Your task to perform on an android device: check data usage Image 0: 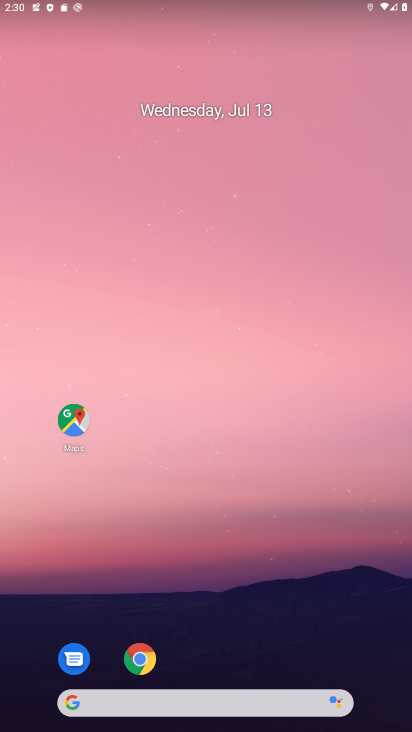
Step 0: drag from (242, 570) to (247, 251)
Your task to perform on an android device: check data usage Image 1: 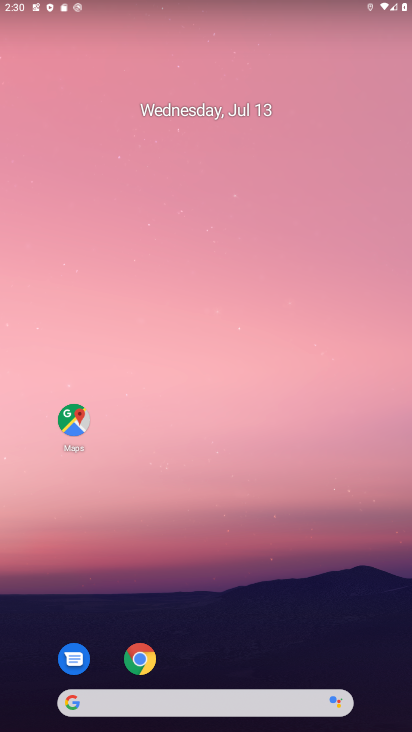
Step 1: drag from (242, 574) to (262, 247)
Your task to perform on an android device: check data usage Image 2: 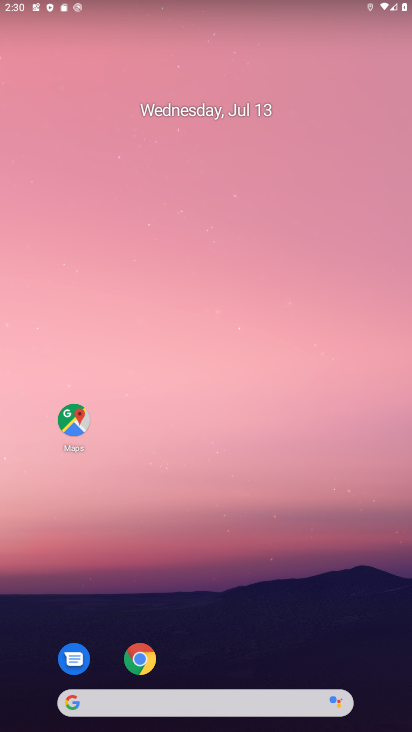
Step 2: drag from (197, 687) to (212, 159)
Your task to perform on an android device: check data usage Image 3: 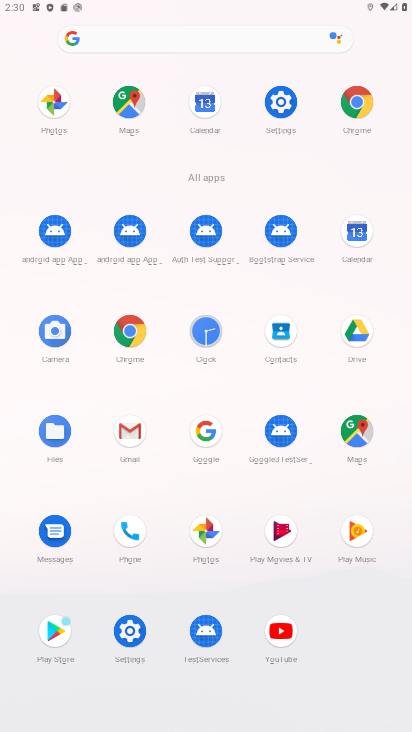
Step 3: click (288, 105)
Your task to perform on an android device: check data usage Image 4: 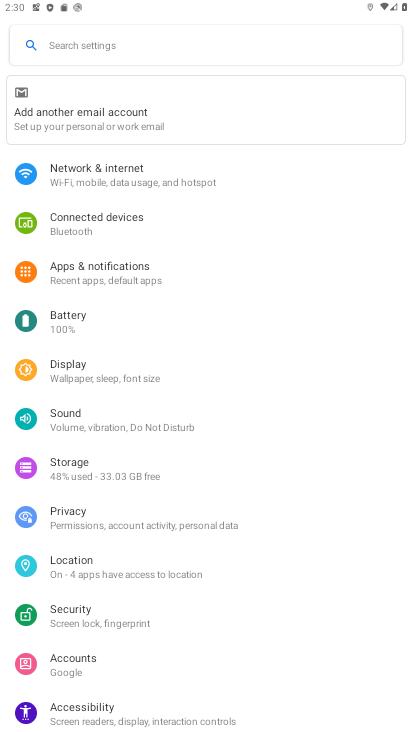
Step 4: click (119, 174)
Your task to perform on an android device: check data usage Image 5: 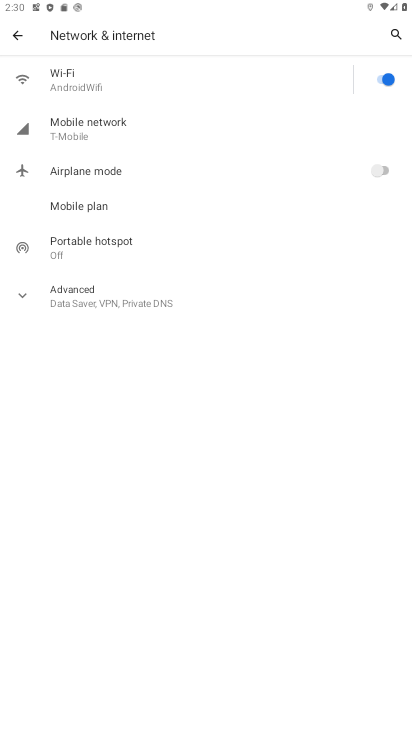
Step 5: click (98, 119)
Your task to perform on an android device: check data usage Image 6: 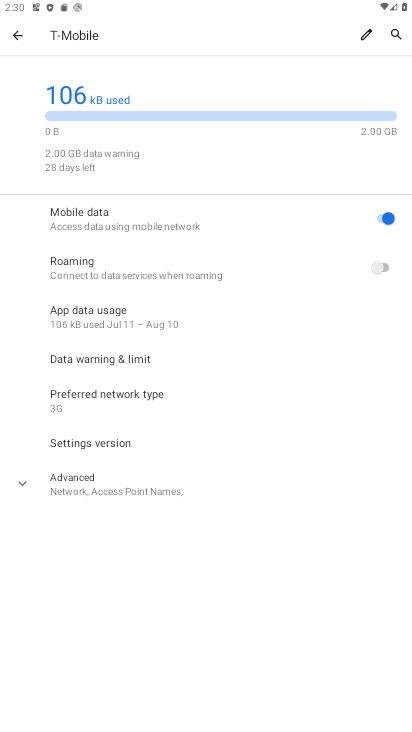
Step 6: click (197, 234)
Your task to perform on an android device: check data usage Image 7: 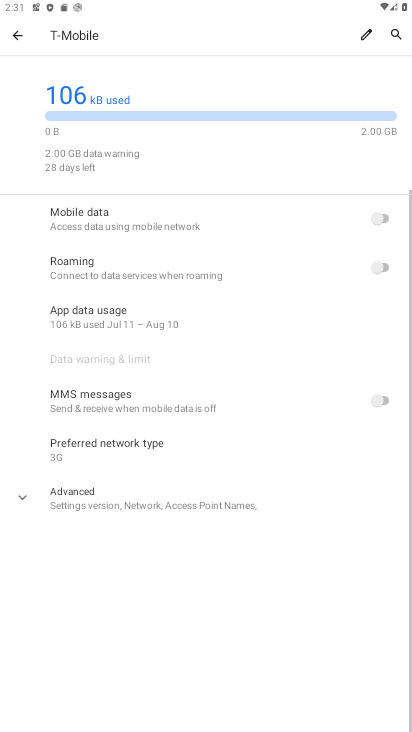
Step 7: click (371, 218)
Your task to perform on an android device: check data usage Image 8: 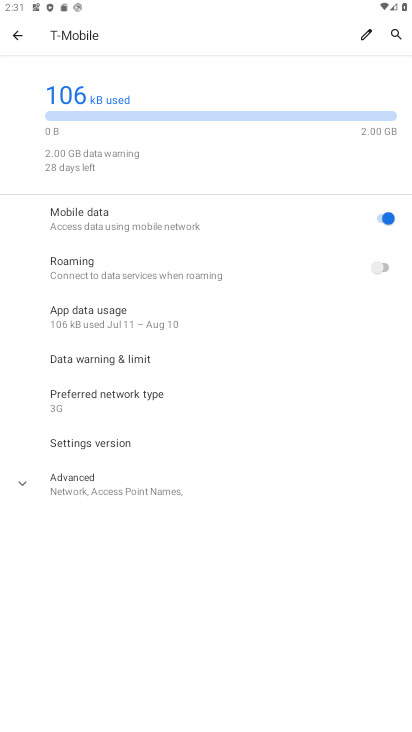
Step 8: task complete